Your task to perform on an android device: Search for vegetarian restaurants on Maps Image 0: 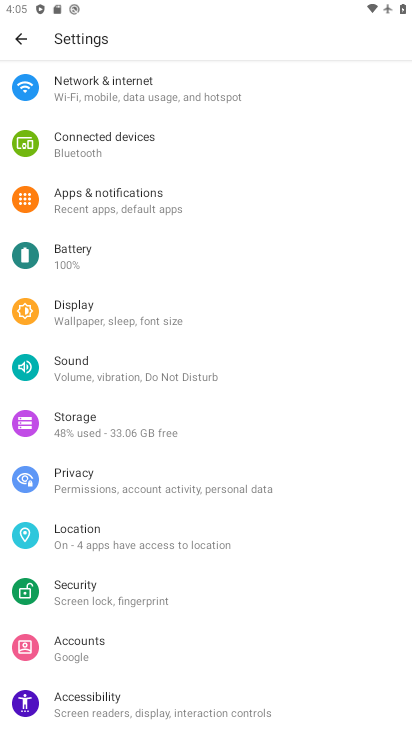
Step 0: press back button
Your task to perform on an android device: Search for vegetarian restaurants on Maps Image 1: 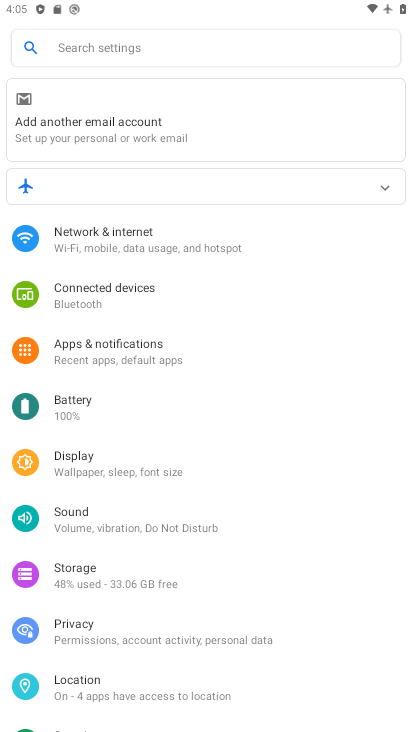
Step 1: press back button
Your task to perform on an android device: Search for vegetarian restaurants on Maps Image 2: 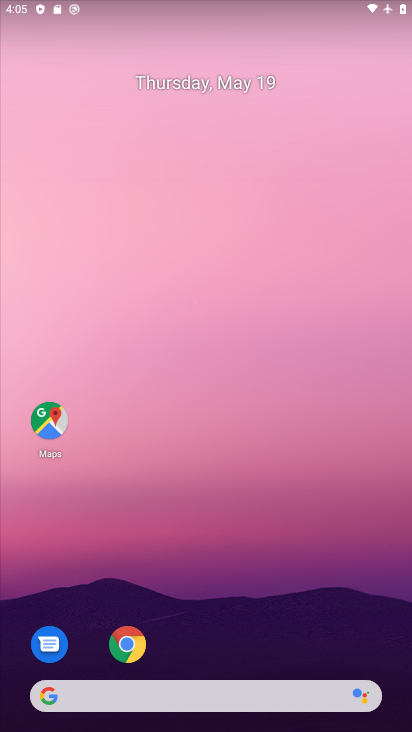
Step 2: drag from (259, 597) to (211, 7)
Your task to perform on an android device: Search for vegetarian restaurants on Maps Image 3: 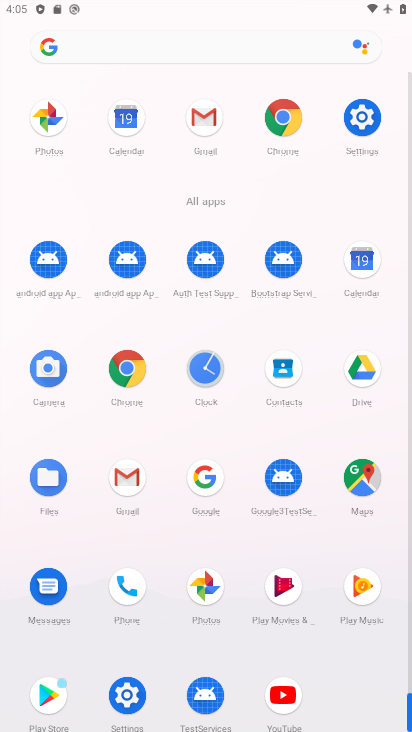
Step 3: click (363, 475)
Your task to perform on an android device: Search for vegetarian restaurants on Maps Image 4: 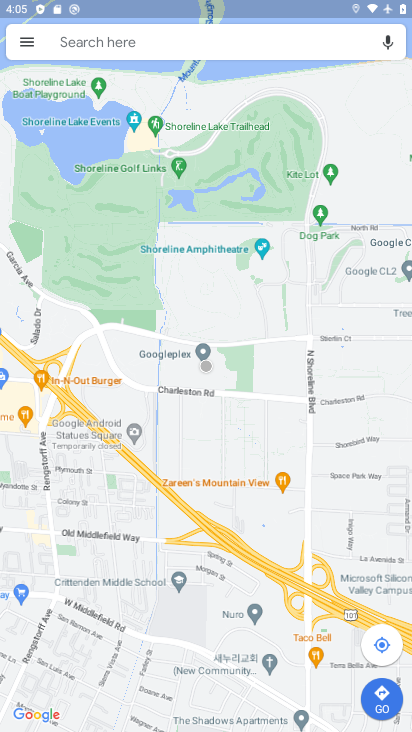
Step 4: click (157, 36)
Your task to perform on an android device: Search for vegetarian restaurants on Maps Image 5: 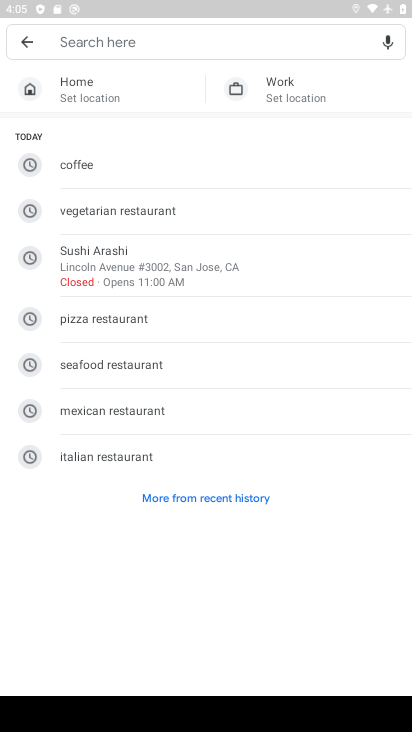
Step 5: click (141, 213)
Your task to perform on an android device: Search for vegetarian restaurants on Maps Image 6: 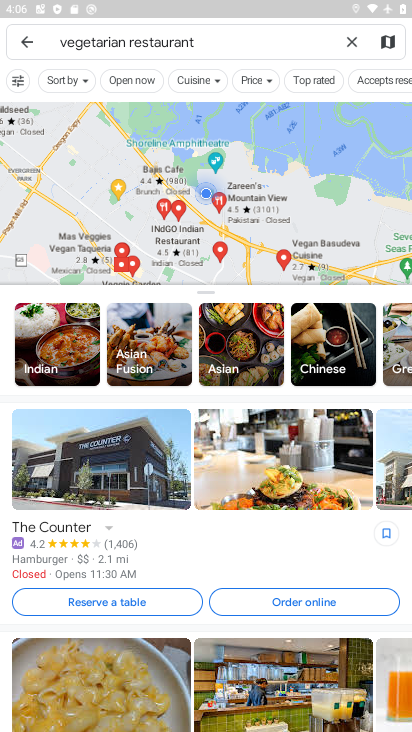
Step 6: task complete